Your task to perform on an android device: set an alarm Image 0: 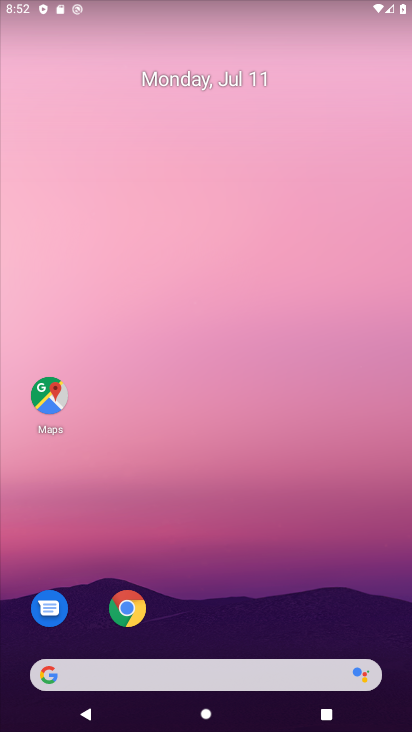
Step 0: drag from (255, 563) to (287, 11)
Your task to perform on an android device: set an alarm Image 1: 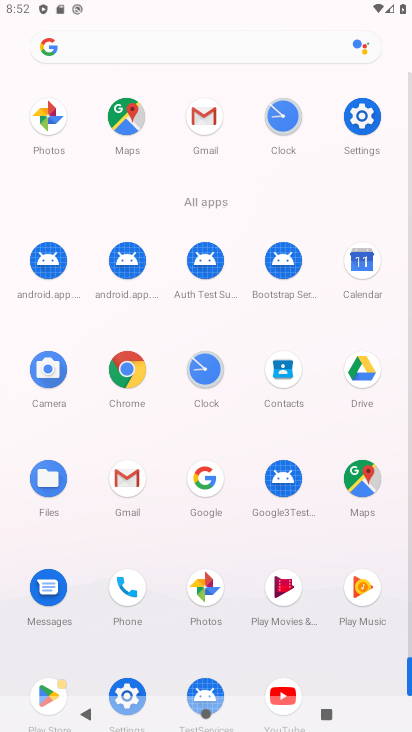
Step 1: click (193, 365)
Your task to perform on an android device: set an alarm Image 2: 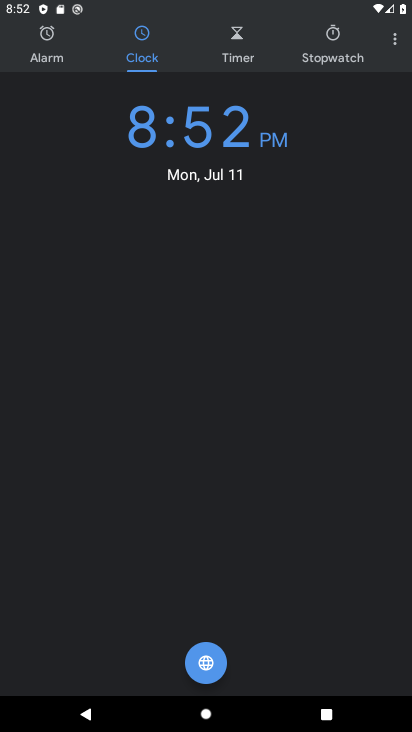
Step 2: click (32, 38)
Your task to perform on an android device: set an alarm Image 3: 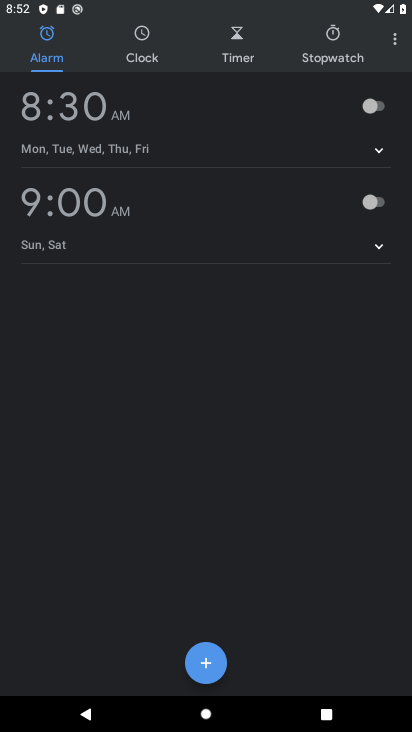
Step 3: click (151, 134)
Your task to perform on an android device: set an alarm Image 4: 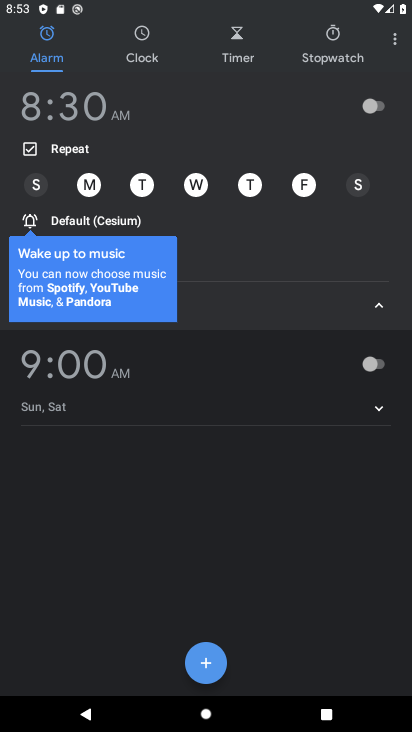
Step 4: click (211, 671)
Your task to perform on an android device: set an alarm Image 5: 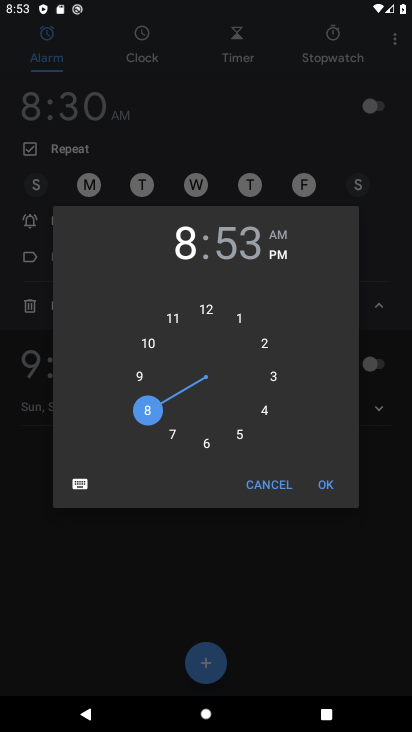
Step 5: click (172, 431)
Your task to perform on an android device: set an alarm Image 6: 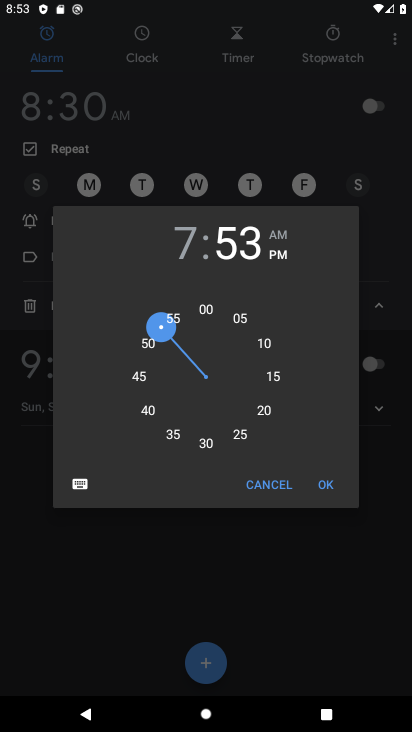
Step 6: click (206, 443)
Your task to perform on an android device: set an alarm Image 7: 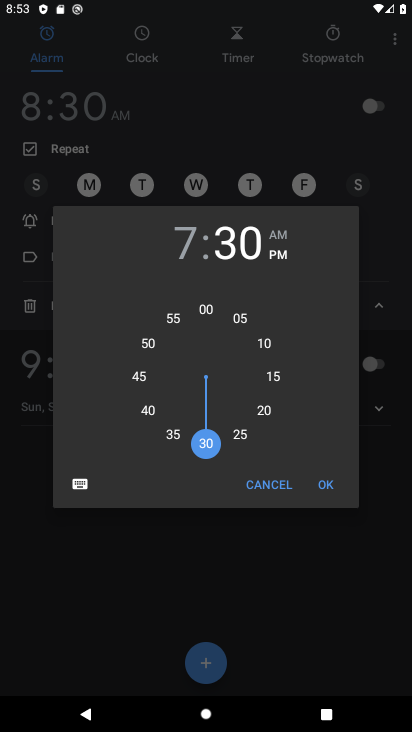
Step 7: click (313, 478)
Your task to perform on an android device: set an alarm Image 8: 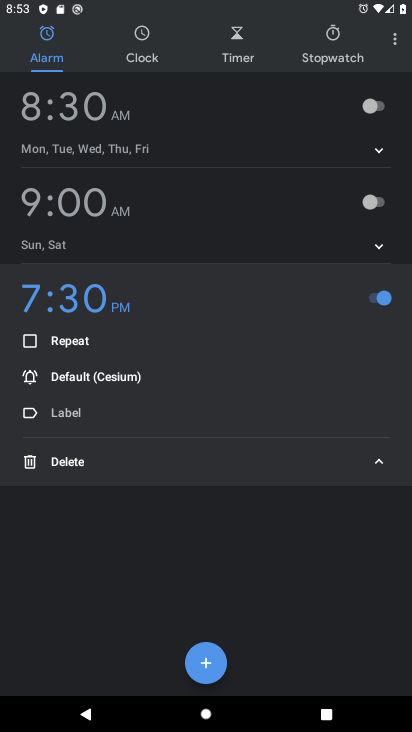
Step 8: task complete